Your task to perform on an android device: View the shopping cart on amazon. Add "jbl charge 4" to the cart on amazon, then select checkout. Image 0: 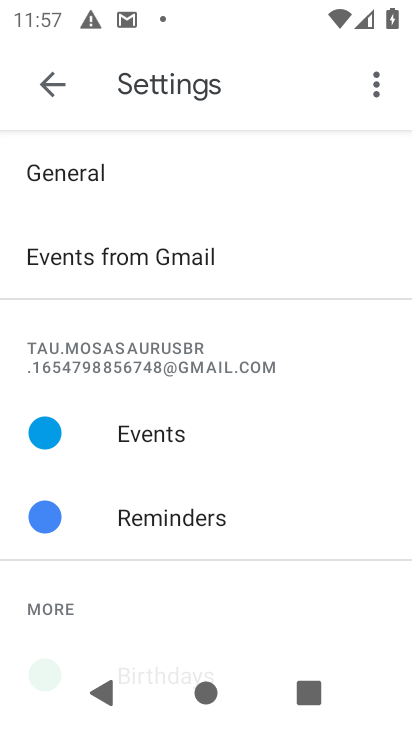
Step 0: press home button
Your task to perform on an android device: View the shopping cart on amazon. Add "jbl charge 4" to the cart on amazon, then select checkout. Image 1: 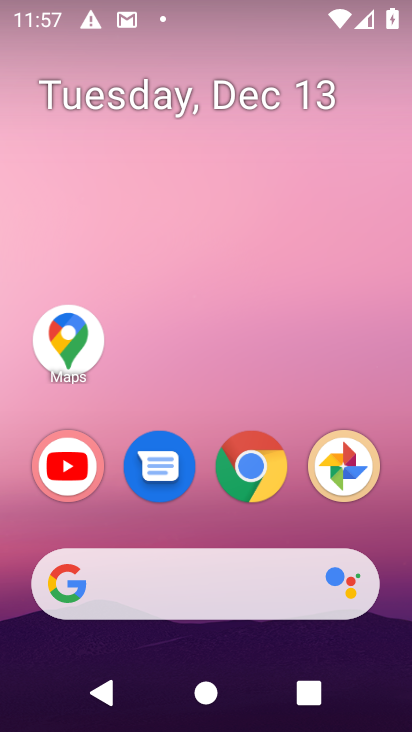
Step 1: click (195, 585)
Your task to perform on an android device: View the shopping cart on amazon. Add "jbl charge 4" to the cart on amazon, then select checkout. Image 2: 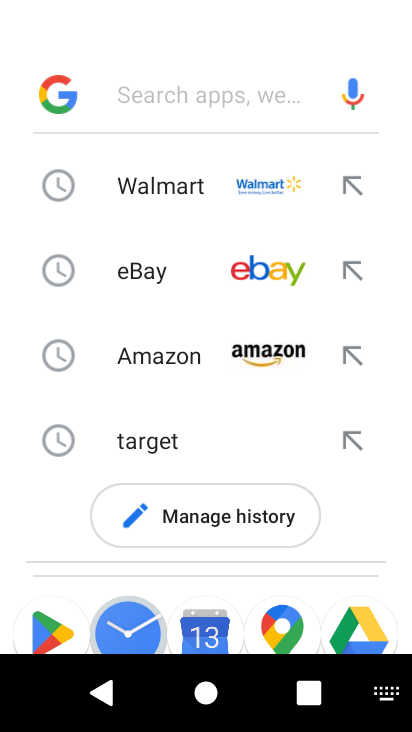
Step 2: type "amazon"
Your task to perform on an android device: View the shopping cart on amazon. Add "jbl charge 4" to the cart on amazon, then select checkout. Image 3: 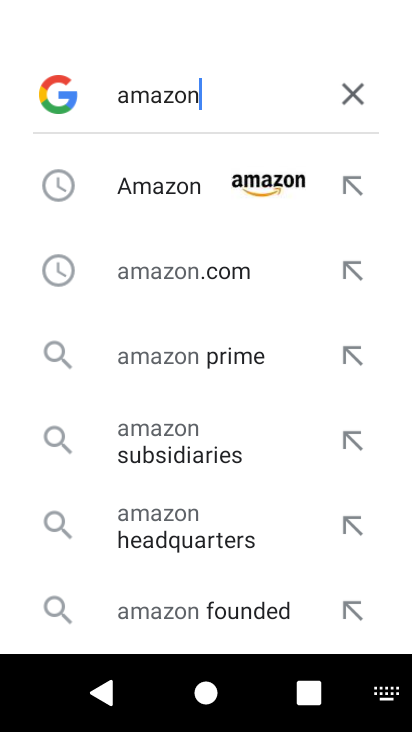
Step 3: click (162, 188)
Your task to perform on an android device: View the shopping cart on amazon. Add "jbl charge 4" to the cart on amazon, then select checkout. Image 4: 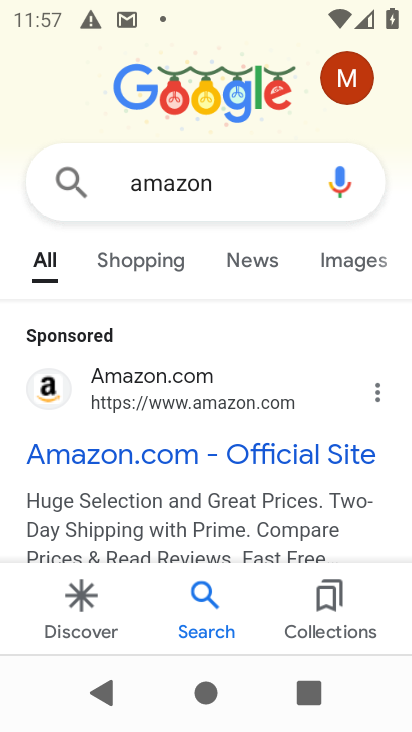
Step 4: click (76, 461)
Your task to perform on an android device: View the shopping cart on amazon. Add "jbl charge 4" to the cart on amazon, then select checkout. Image 5: 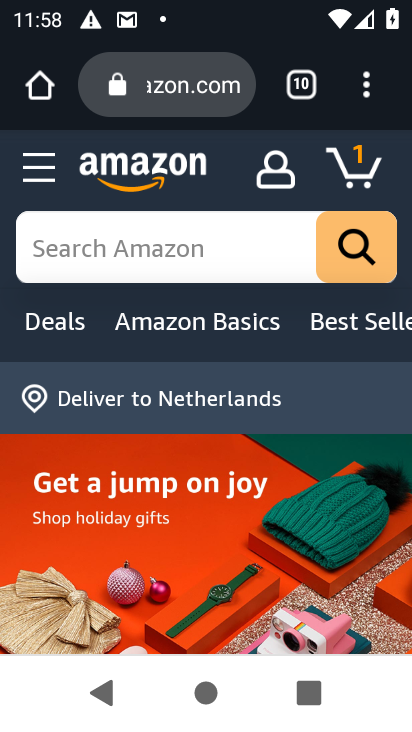
Step 5: click (169, 255)
Your task to perform on an android device: View the shopping cart on amazon. Add "jbl charge 4" to the cart on amazon, then select checkout. Image 6: 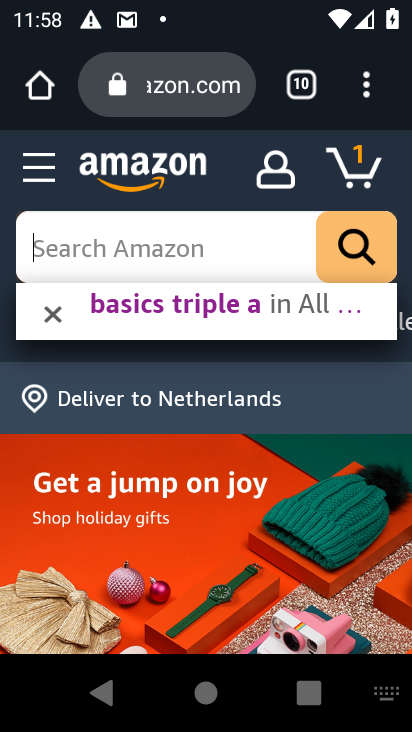
Step 6: type "jbl charge 4"
Your task to perform on an android device: View the shopping cart on amazon. Add "jbl charge 4" to the cart on amazon, then select checkout. Image 7: 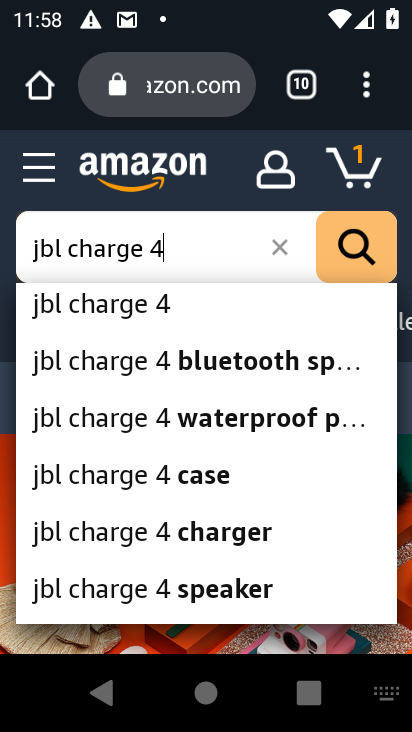
Step 7: click (106, 314)
Your task to perform on an android device: View the shopping cart on amazon. Add "jbl charge 4" to the cart on amazon, then select checkout. Image 8: 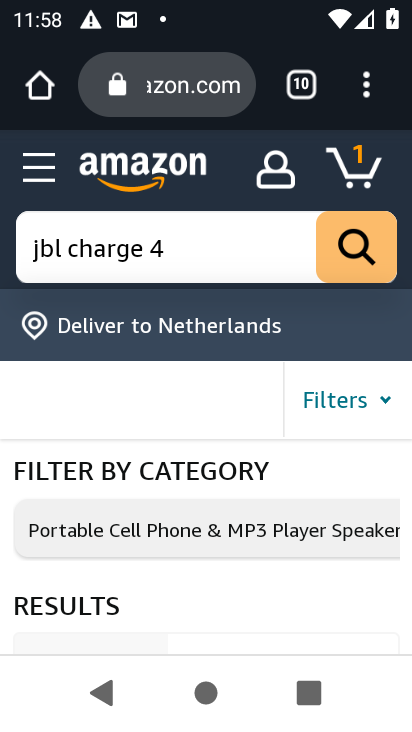
Step 8: drag from (184, 589) to (163, 437)
Your task to perform on an android device: View the shopping cart on amazon. Add "jbl charge 4" to the cart on amazon, then select checkout. Image 9: 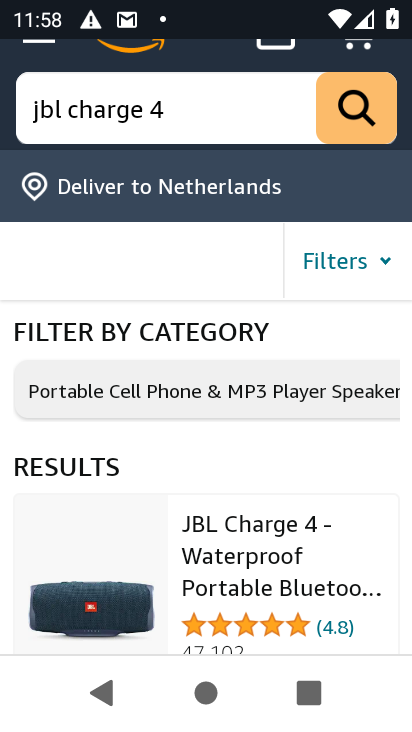
Step 9: drag from (182, 558) to (161, 316)
Your task to perform on an android device: View the shopping cart on amazon. Add "jbl charge 4" to the cart on amazon, then select checkout. Image 10: 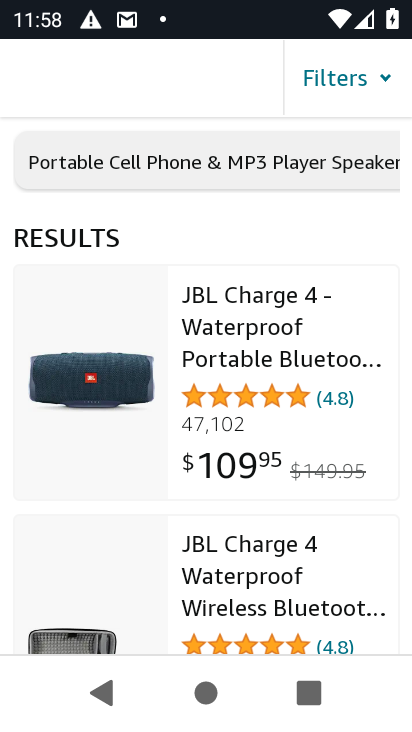
Step 10: click (229, 358)
Your task to perform on an android device: View the shopping cart on amazon. Add "jbl charge 4" to the cart on amazon, then select checkout. Image 11: 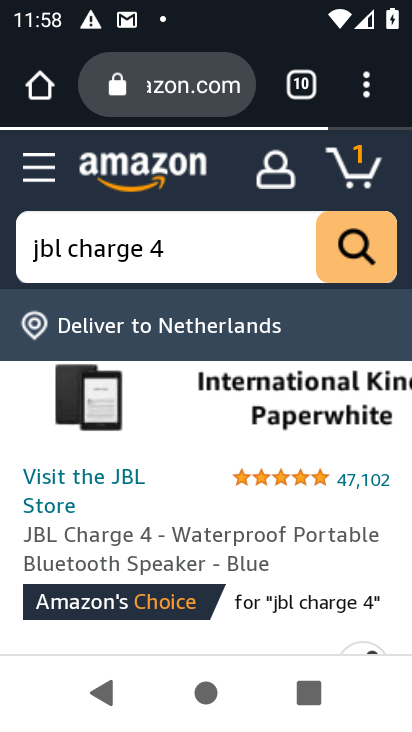
Step 11: drag from (252, 559) to (216, 297)
Your task to perform on an android device: View the shopping cart on amazon. Add "jbl charge 4" to the cart on amazon, then select checkout. Image 12: 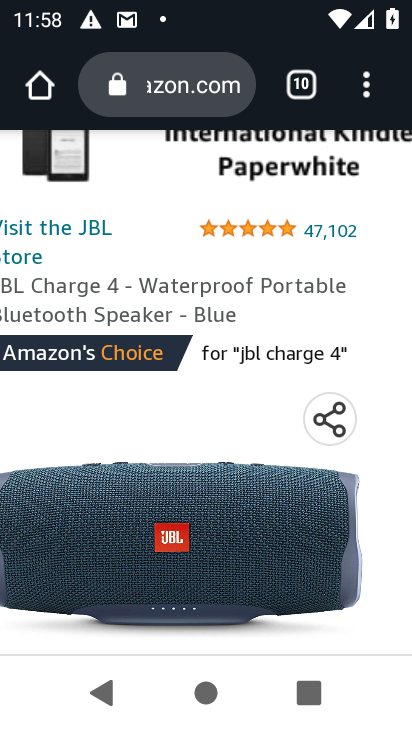
Step 12: drag from (202, 481) to (204, 280)
Your task to perform on an android device: View the shopping cart on amazon. Add "jbl charge 4" to the cart on amazon, then select checkout. Image 13: 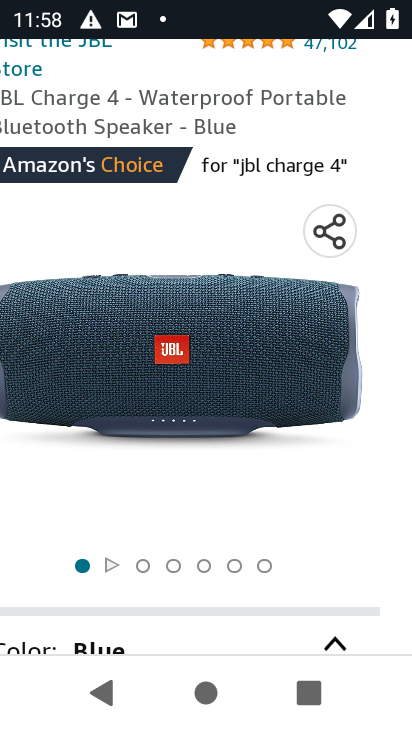
Step 13: drag from (174, 503) to (174, 342)
Your task to perform on an android device: View the shopping cart on amazon. Add "jbl charge 4" to the cart on amazon, then select checkout. Image 14: 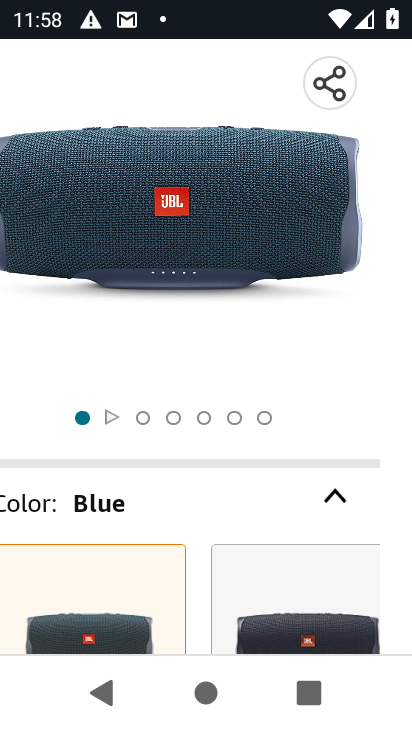
Step 14: drag from (174, 469) to (186, 265)
Your task to perform on an android device: View the shopping cart on amazon. Add "jbl charge 4" to the cart on amazon, then select checkout. Image 15: 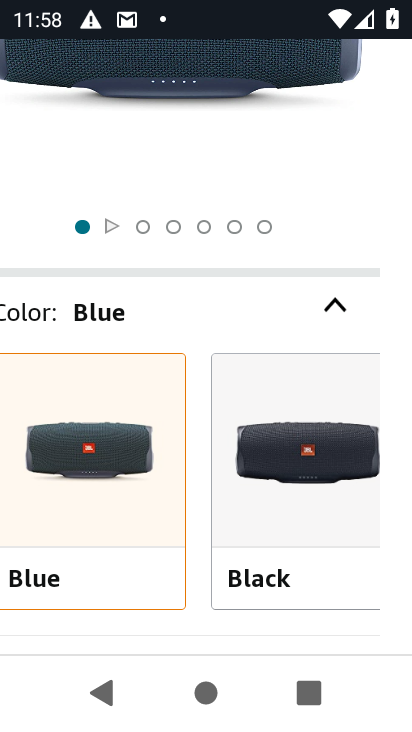
Step 15: drag from (190, 610) to (223, 298)
Your task to perform on an android device: View the shopping cart on amazon. Add "jbl charge 4" to the cart on amazon, then select checkout. Image 16: 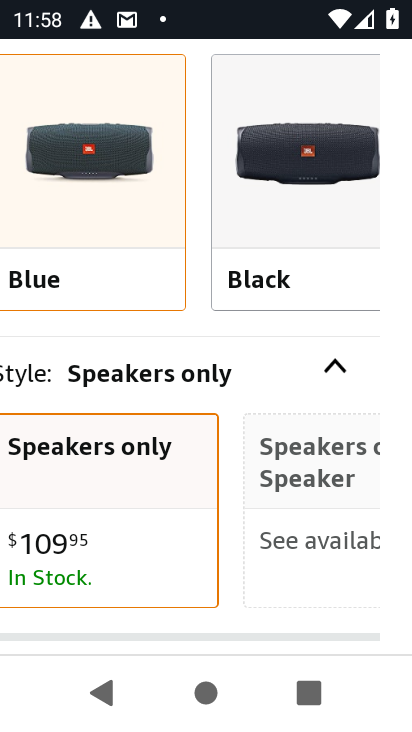
Step 16: drag from (225, 567) to (225, 386)
Your task to perform on an android device: View the shopping cart on amazon. Add "jbl charge 4" to the cart on amazon, then select checkout. Image 17: 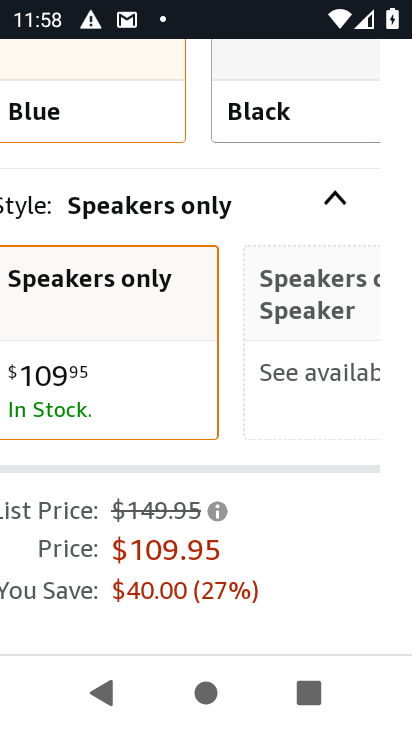
Step 17: drag from (247, 611) to (248, 376)
Your task to perform on an android device: View the shopping cart on amazon. Add "jbl charge 4" to the cart on amazon, then select checkout. Image 18: 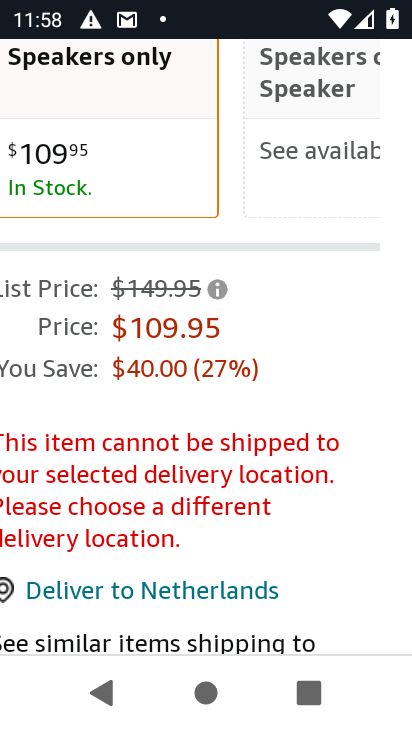
Step 18: click (306, 578)
Your task to perform on an android device: View the shopping cart on amazon. Add "jbl charge 4" to the cart on amazon, then select checkout. Image 19: 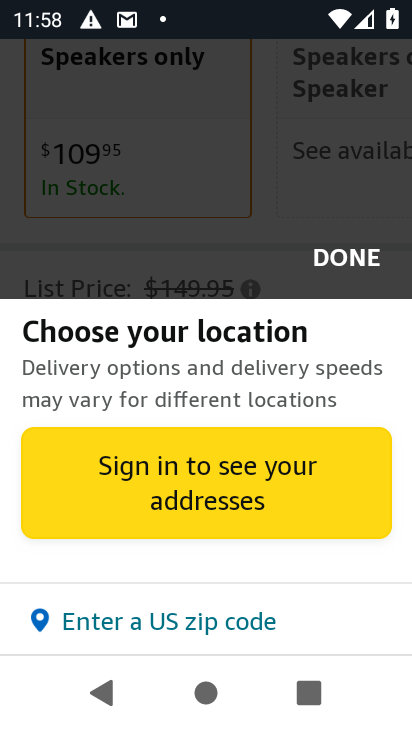
Step 19: task complete